Your task to perform on an android device: turn notification dots on Image 0: 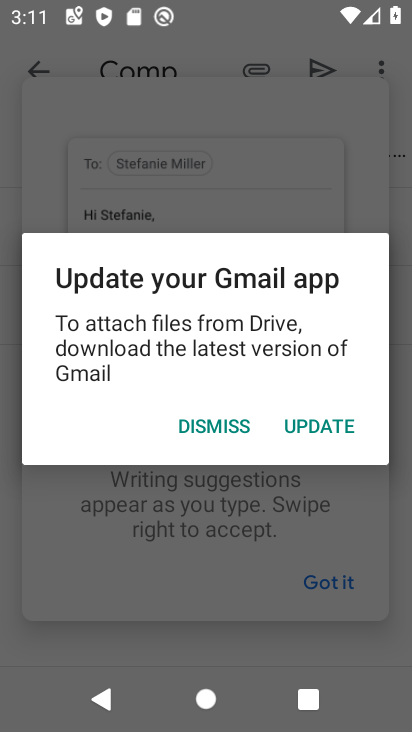
Step 0: press home button
Your task to perform on an android device: turn notification dots on Image 1: 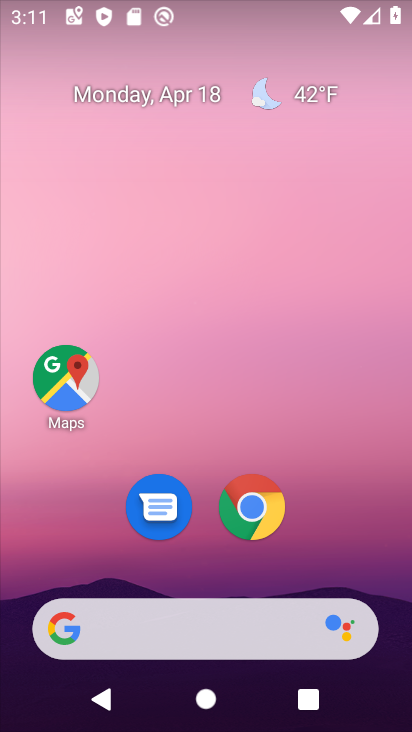
Step 1: drag from (353, 507) to (347, 141)
Your task to perform on an android device: turn notification dots on Image 2: 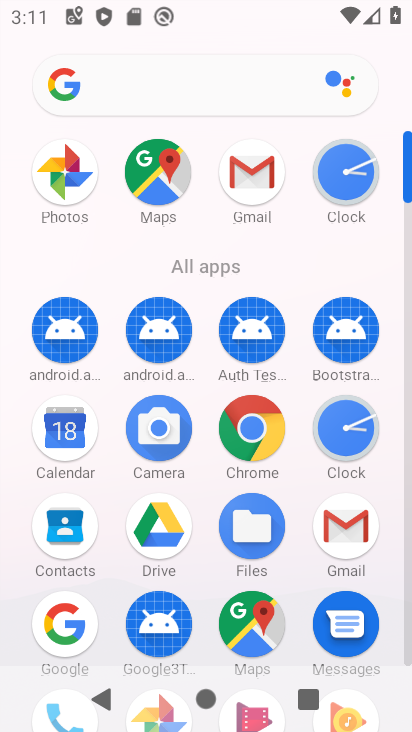
Step 2: drag from (288, 471) to (288, 294)
Your task to perform on an android device: turn notification dots on Image 3: 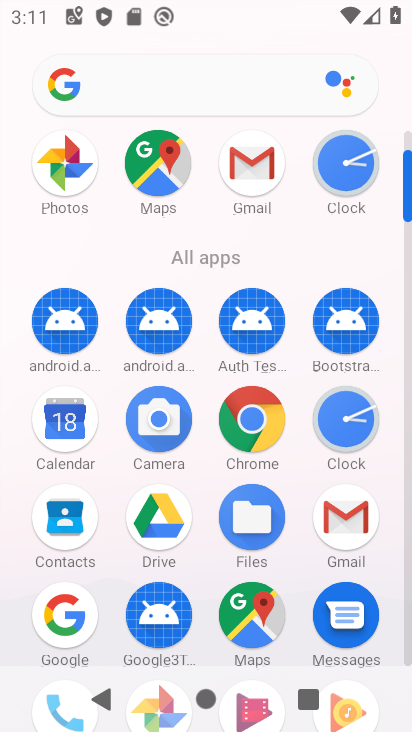
Step 3: drag from (295, 450) to (299, 226)
Your task to perform on an android device: turn notification dots on Image 4: 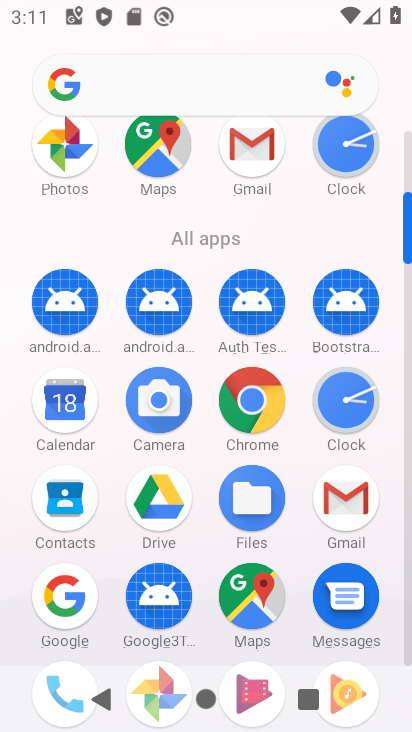
Step 4: drag from (304, 559) to (301, 221)
Your task to perform on an android device: turn notification dots on Image 5: 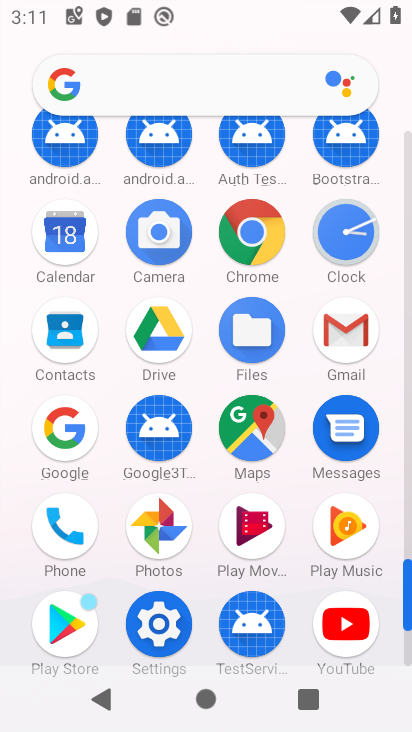
Step 5: click (152, 633)
Your task to perform on an android device: turn notification dots on Image 6: 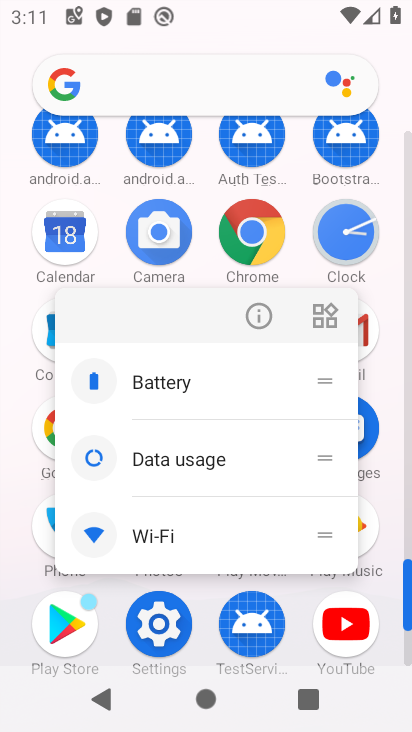
Step 6: click (157, 630)
Your task to perform on an android device: turn notification dots on Image 7: 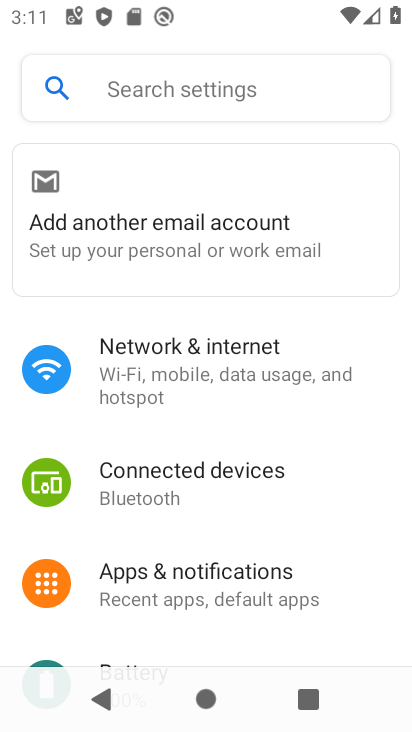
Step 7: click (186, 582)
Your task to perform on an android device: turn notification dots on Image 8: 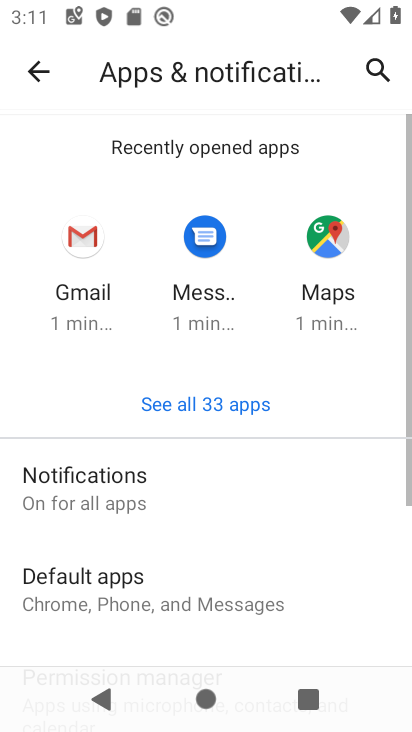
Step 8: click (120, 491)
Your task to perform on an android device: turn notification dots on Image 9: 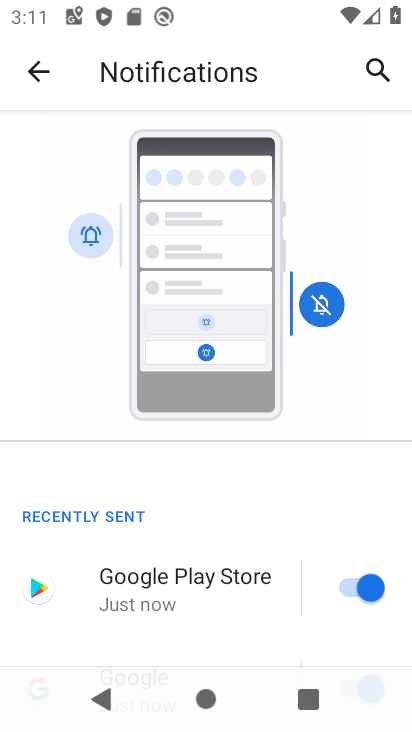
Step 9: drag from (247, 547) to (311, 192)
Your task to perform on an android device: turn notification dots on Image 10: 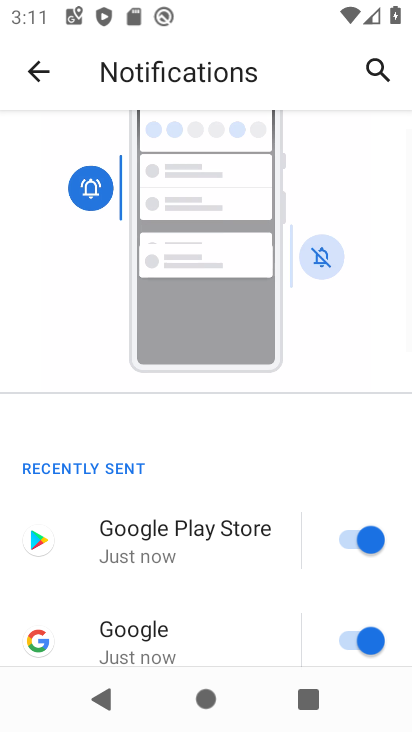
Step 10: drag from (251, 629) to (345, 251)
Your task to perform on an android device: turn notification dots on Image 11: 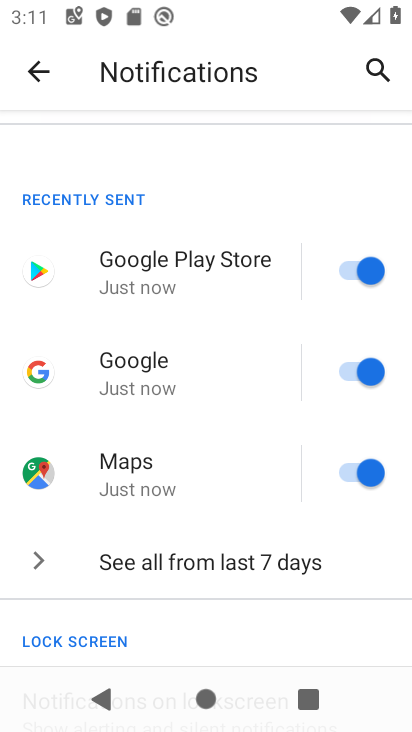
Step 11: drag from (205, 497) to (285, 182)
Your task to perform on an android device: turn notification dots on Image 12: 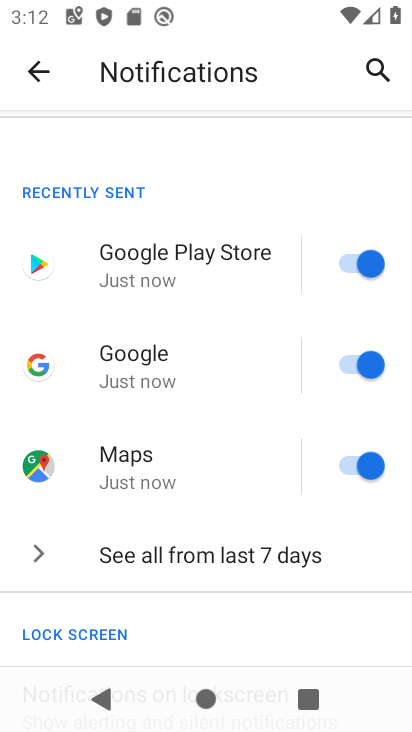
Step 12: drag from (204, 625) to (282, 224)
Your task to perform on an android device: turn notification dots on Image 13: 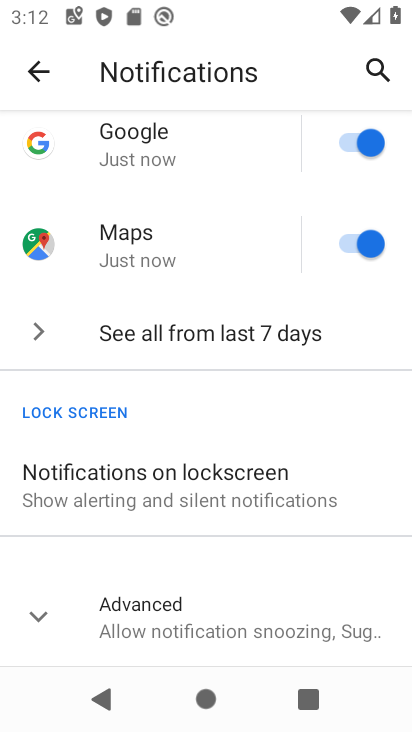
Step 13: click (203, 632)
Your task to perform on an android device: turn notification dots on Image 14: 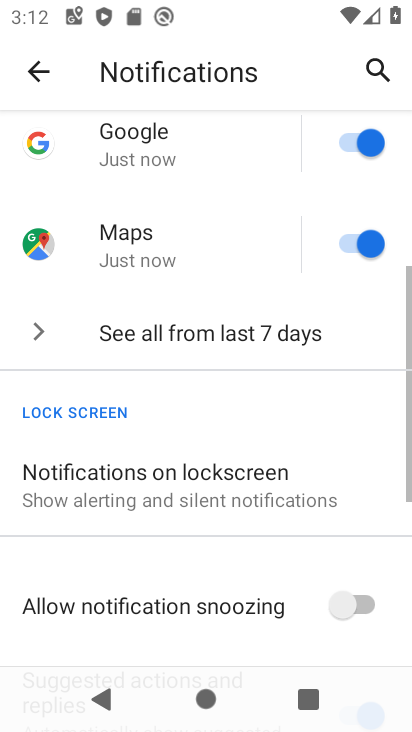
Step 14: task complete